Your task to perform on an android device: turn off location history Image 0: 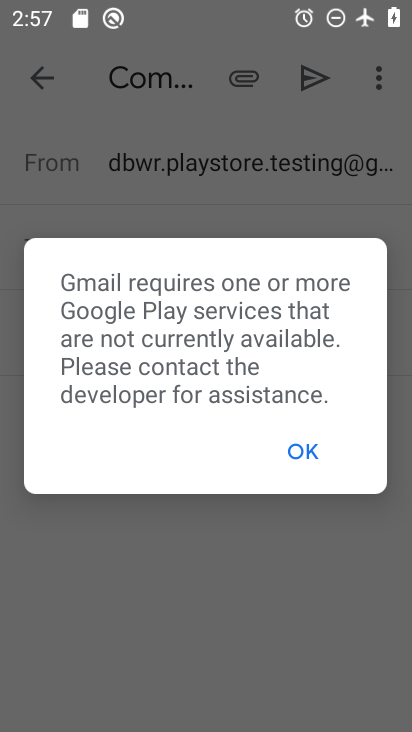
Step 0: press home button
Your task to perform on an android device: turn off location history Image 1: 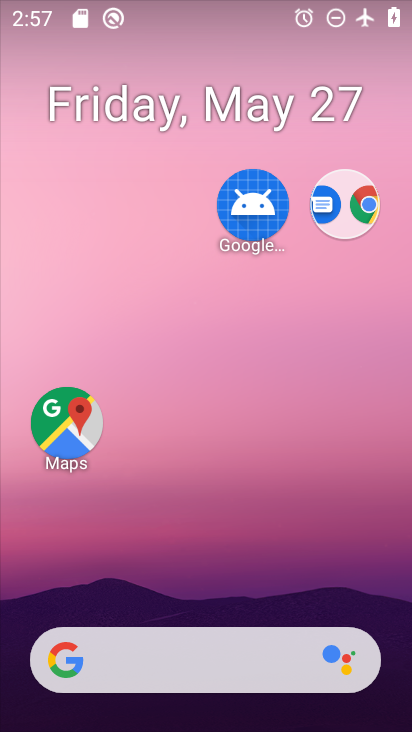
Step 1: drag from (213, 622) to (236, 107)
Your task to perform on an android device: turn off location history Image 2: 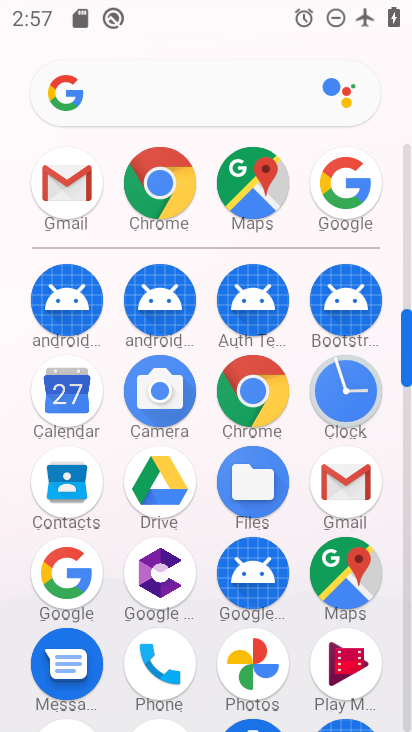
Step 2: drag from (320, 466) to (333, 219)
Your task to perform on an android device: turn off location history Image 3: 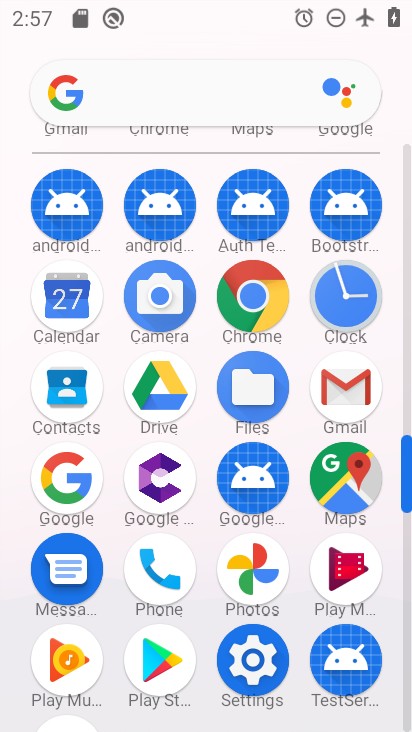
Step 3: click (258, 664)
Your task to perform on an android device: turn off location history Image 4: 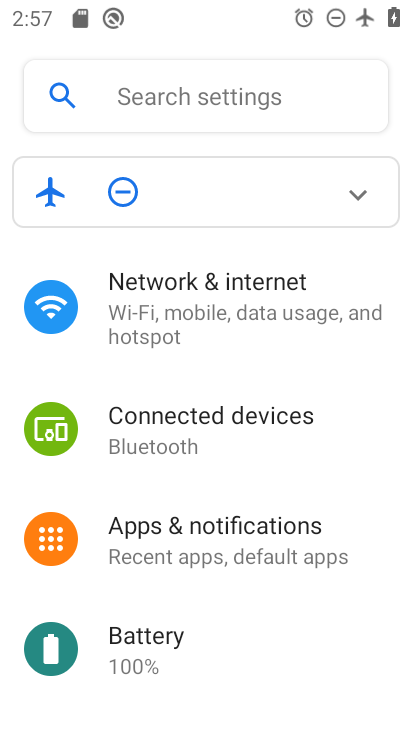
Step 4: drag from (324, 469) to (336, 298)
Your task to perform on an android device: turn off location history Image 5: 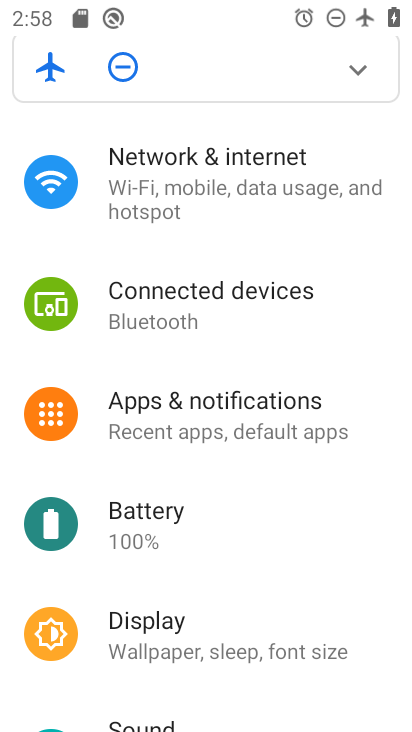
Step 5: drag from (185, 607) to (190, 449)
Your task to perform on an android device: turn off location history Image 6: 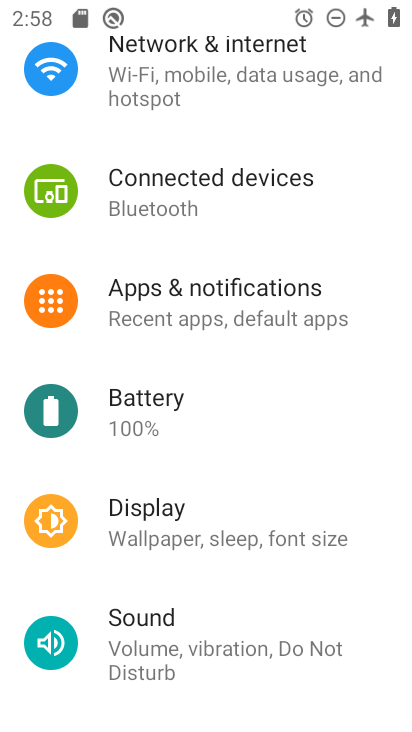
Step 6: drag from (206, 563) to (240, 306)
Your task to perform on an android device: turn off location history Image 7: 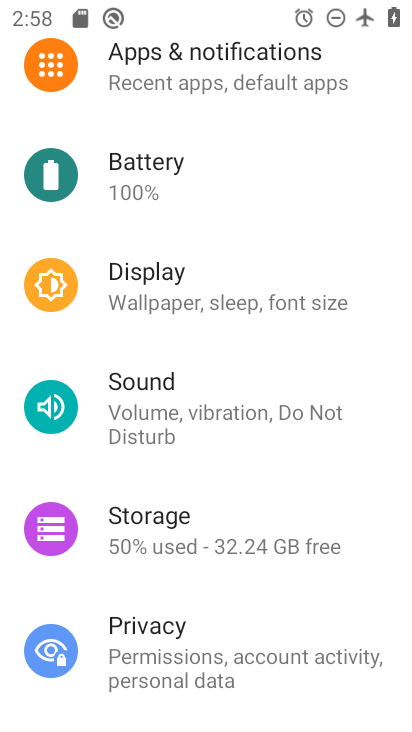
Step 7: drag from (250, 589) to (280, 344)
Your task to perform on an android device: turn off location history Image 8: 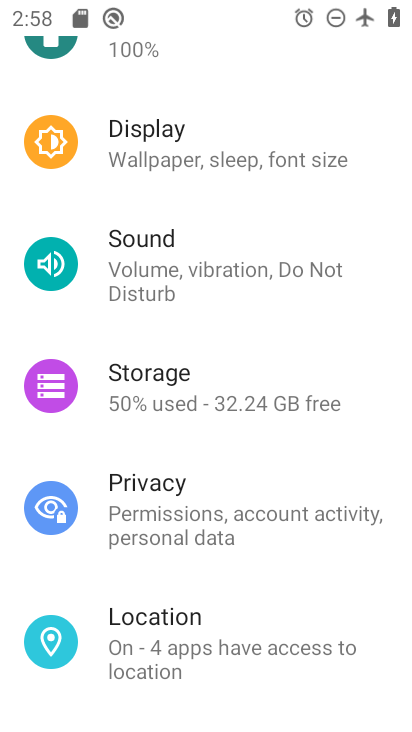
Step 8: click (212, 655)
Your task to perform on an android device: turn off location history Image 9: 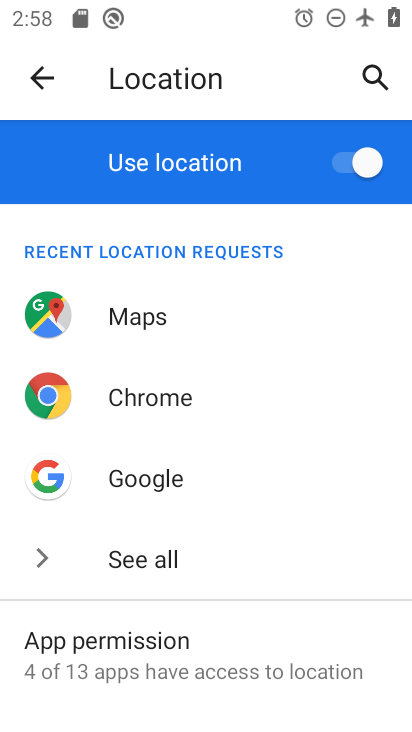
Step 9: drag from (212, 655) to (243, 420)
Your task to perform on an android device: turn off location history Image 10: 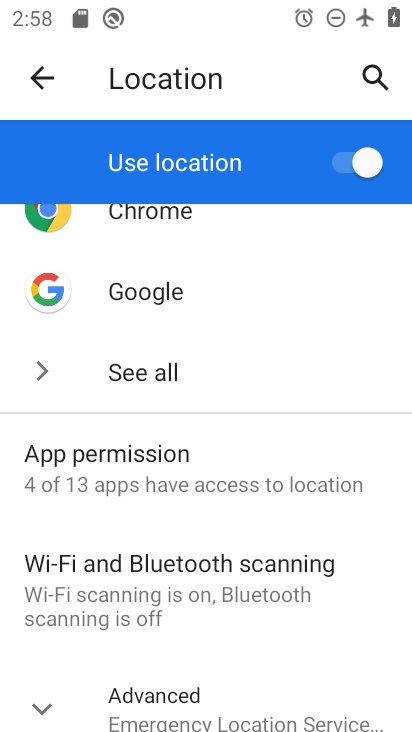
Step 10: drag from (243, 638) to (270, 375)
Your task to perform on an android device: turn off location history Image 11: 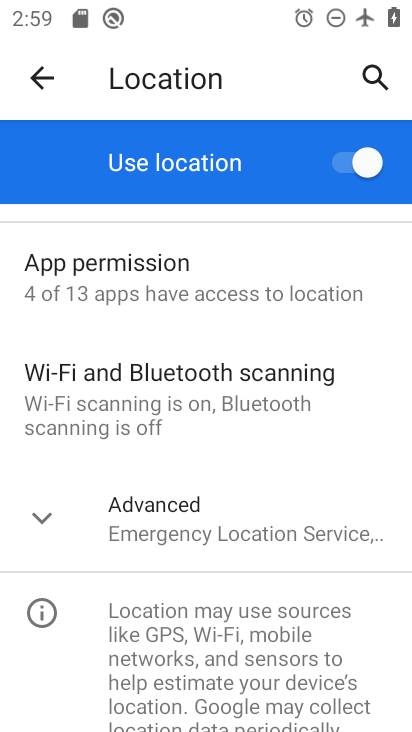
Step 11: click (154, 527)
Your task to perform on an android device: turn off location history Image 12: 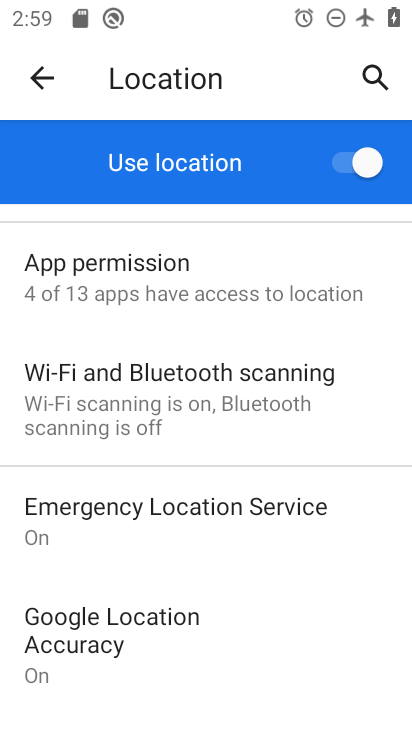
Step 12: drag from (179, 589) to (198, 370)
Your task to perform on an android device: turn off location history Image 13: 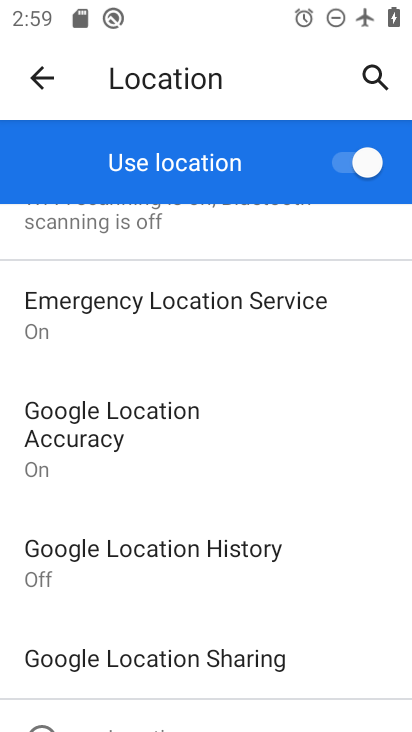
Step 13: click (250, 573)
Your task to perform on an android device: turn off location history Image 14: 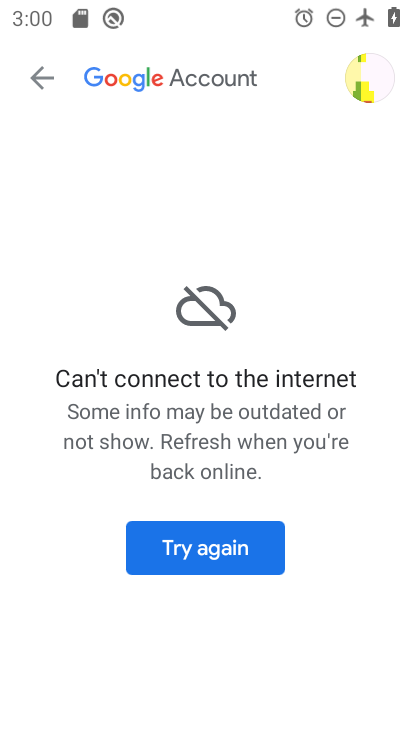
Step 14: task complete